Your task to perform on an android device: Open sound settings Image 0: 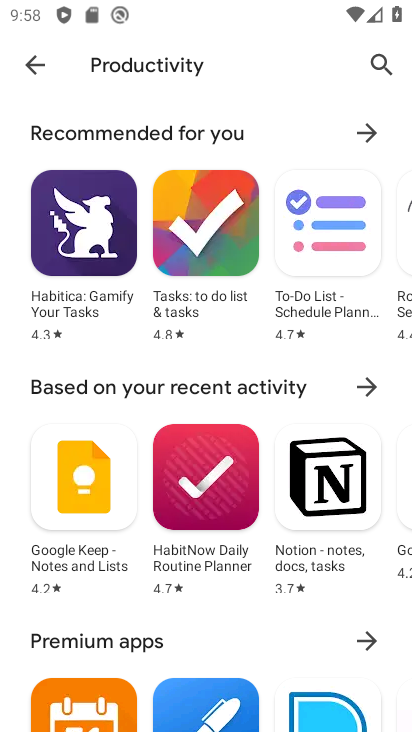
Step 0: press home button
Your task to perform on an android device: Open sound settings Image 1: 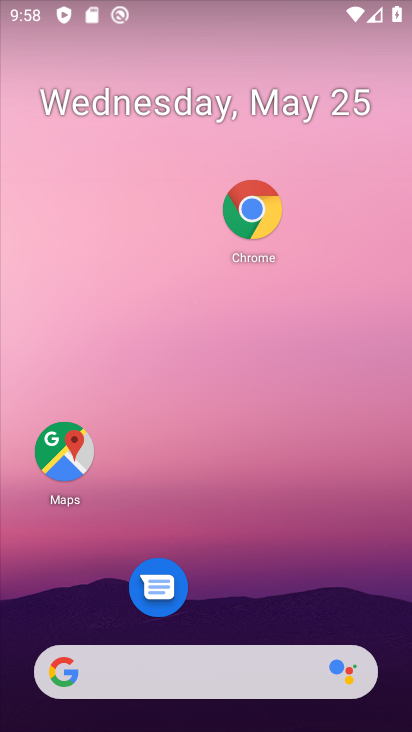
Step 1: drag from (265, 428) to (258, 9)
Your task to perform on an android device: Open sound settings Image 2: 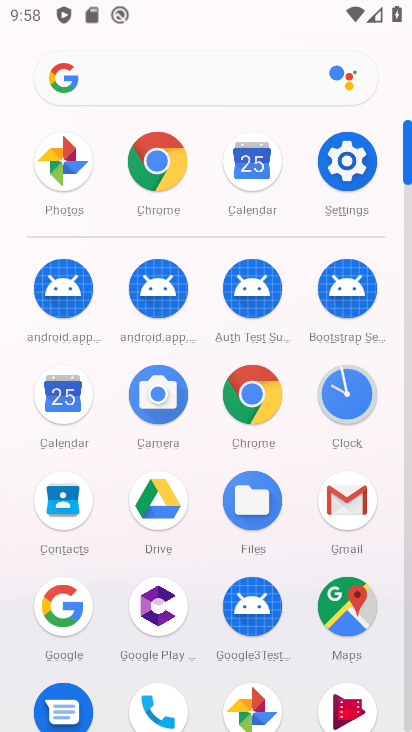
Step 2: click (351, 166)
Your task to perform on an android device: Open sound settings Image 3: 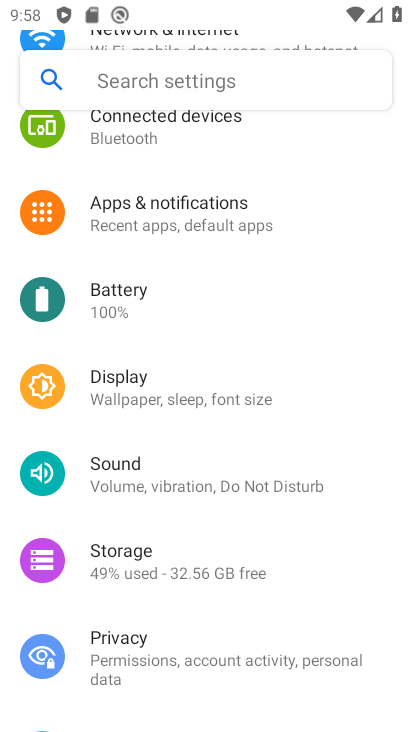
Step 3: click (172, 475)
Your task to perform on an android device: Open sound settings Image 4: 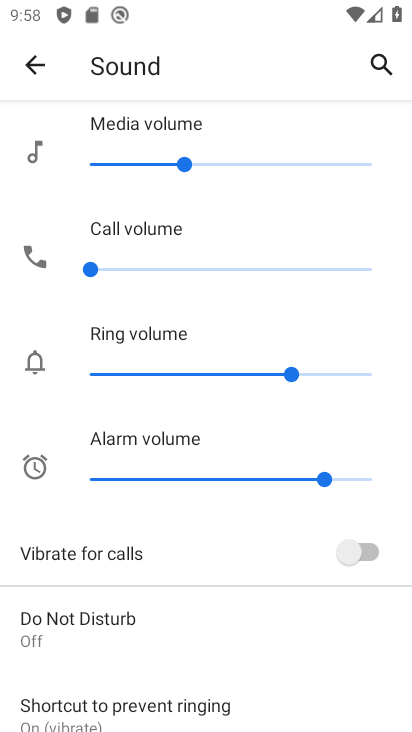
Step 4: task complete